Your task to perform on an android device: check battery use Image 0: 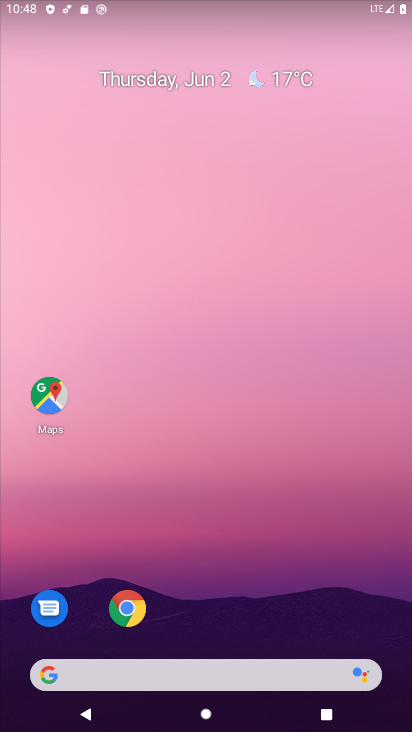
Step 0: drag from (281, 505) to (205, 35)
Your task to perform on an android device: check battery use Image 1: 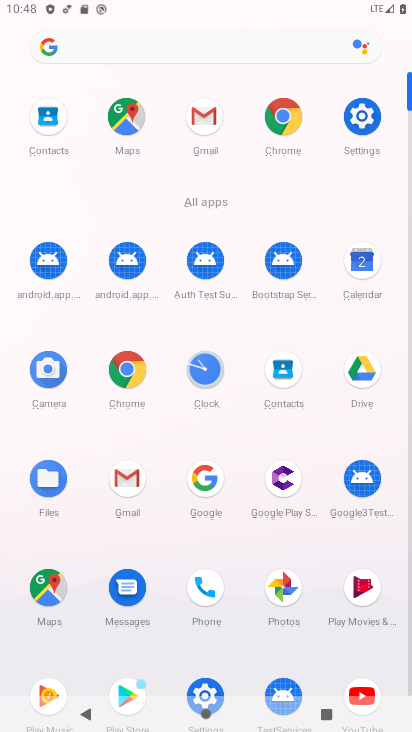
Step 1: click (375, 114)
Your task to perform on an android device: check battery use Image 2: 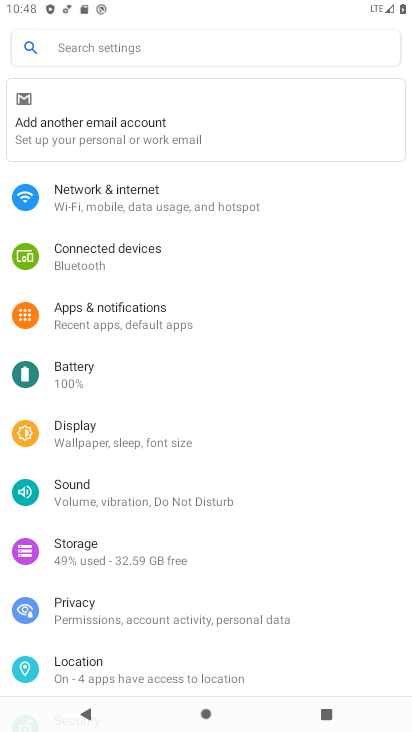
Step 2: click (137, 384)
Your task to perform on an android device: check battery use Image 3: 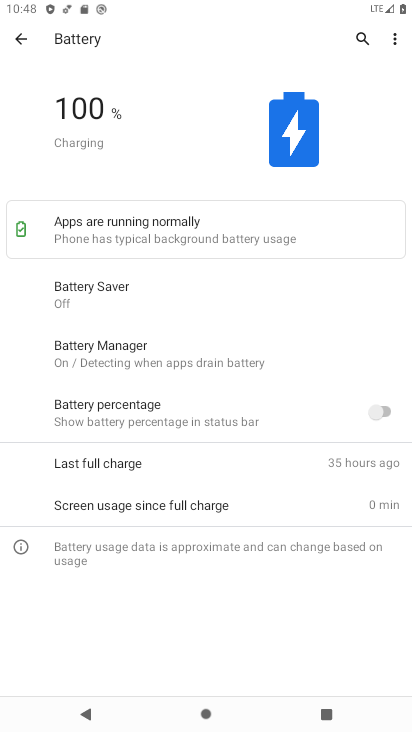
Step 3: click (392, 39)
Your task to perform on an android device: check battery use Image 4: 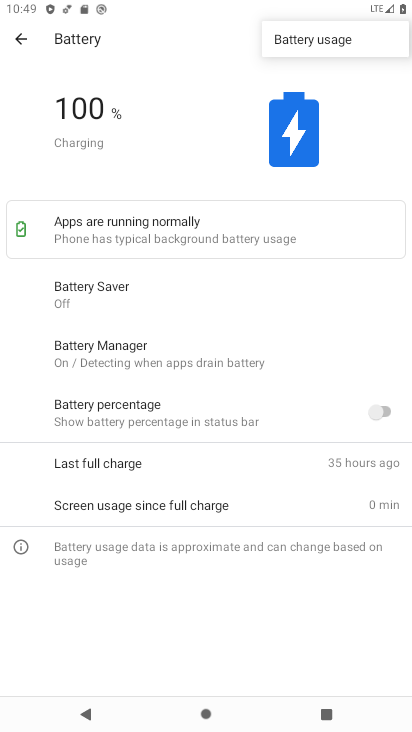
Step 4: click (316, 44)
Your task to perform on an android device: check battery use Image 5: 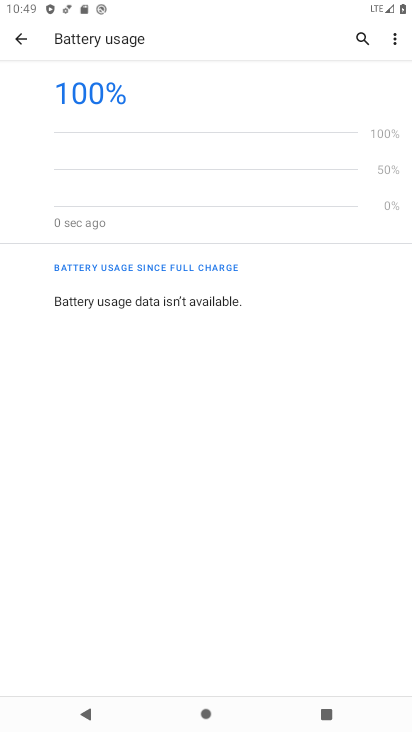
Step 5: task complete